Your task to perform on an android device: Go to sound settings Image 0: 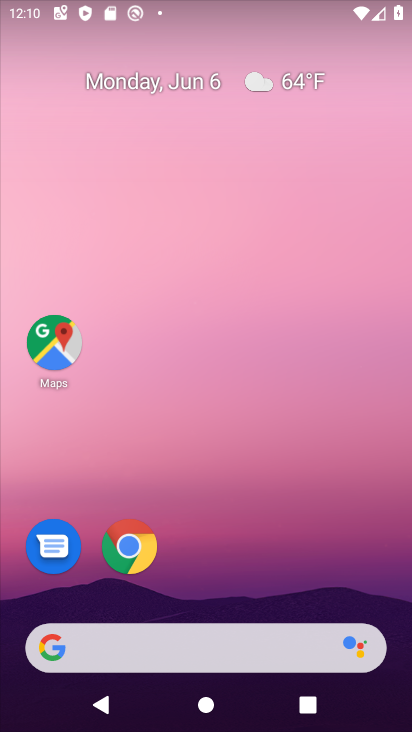
Step 0: drag from (258, 521) to (290, 237)
Your task to perform on an android device: Go to sound settings Image 1: 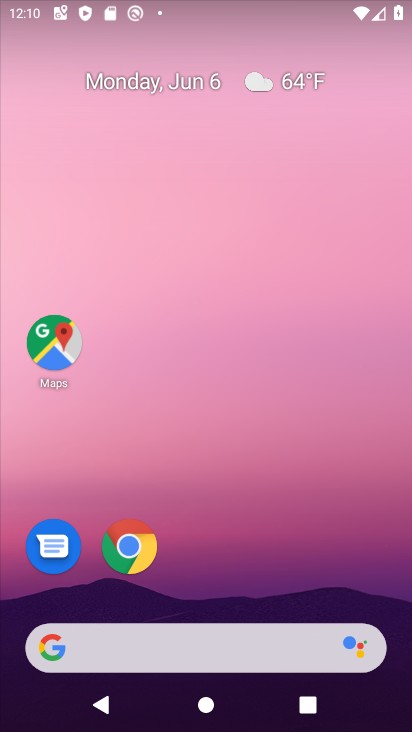
Step 1: drag from (189, 572) to (256, 138)
Your task to perform on an android device: Go to sound settings Image 2: 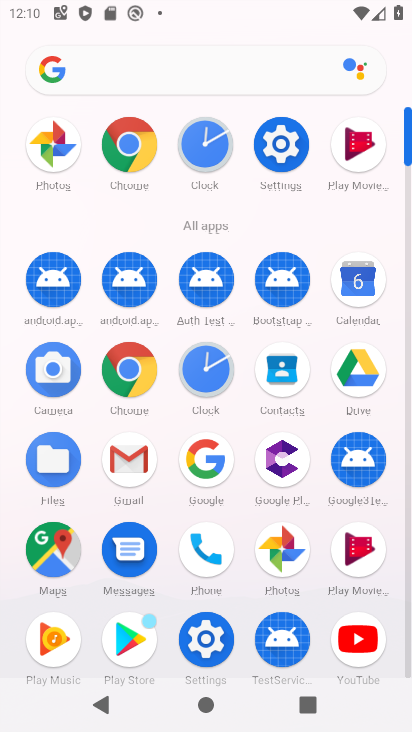
Step 2: click (269, 159)
Your task to perform on an android device: Go to sound settings Image 3: 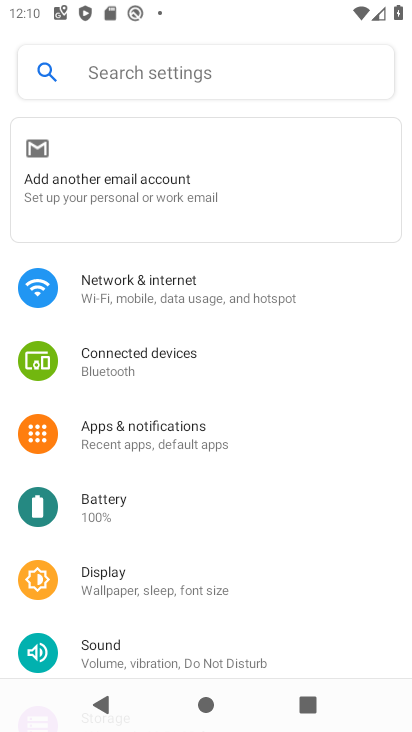
Step 3: click (170, 652)
Your task to perform on an android device: Go to sound settings Image 4: 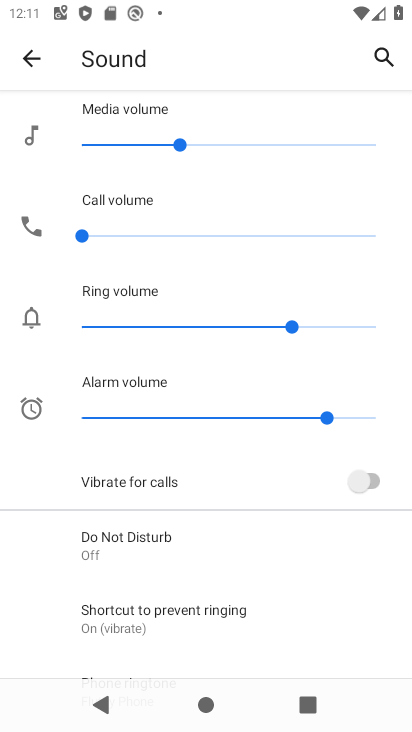
Step 4: task complete